Your task to perform on an android device: check google app version Image 0: 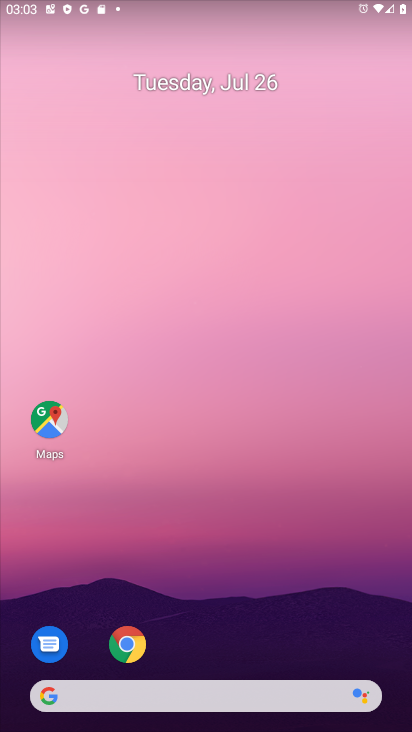
Step 0: drag from (185, 657) to (215, 365)
Your task to perform on an android device: check google app version Image 1: 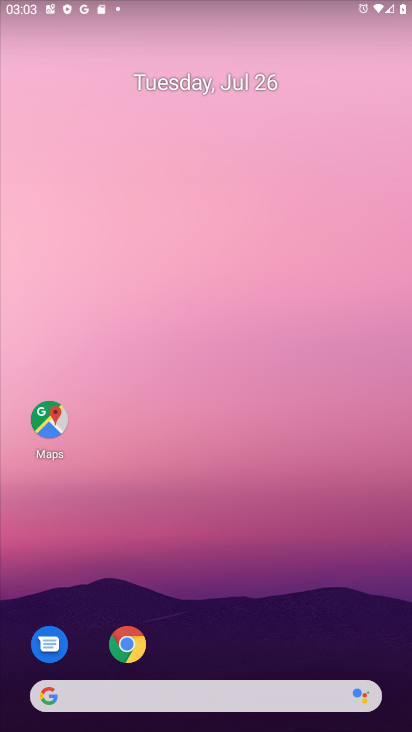
Step 1: drag from (213, 648) to (131, 9)
Your task to perform on an android device: check google app version Image 2: 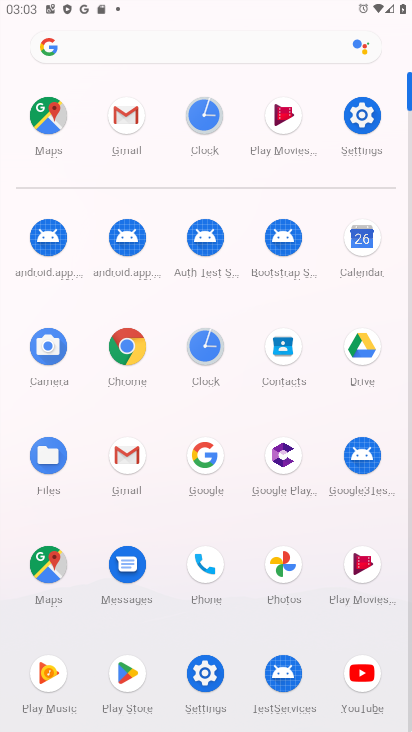
Step 2: click (210, 453)
Your task to perform on an android device: check google app version Image 3: 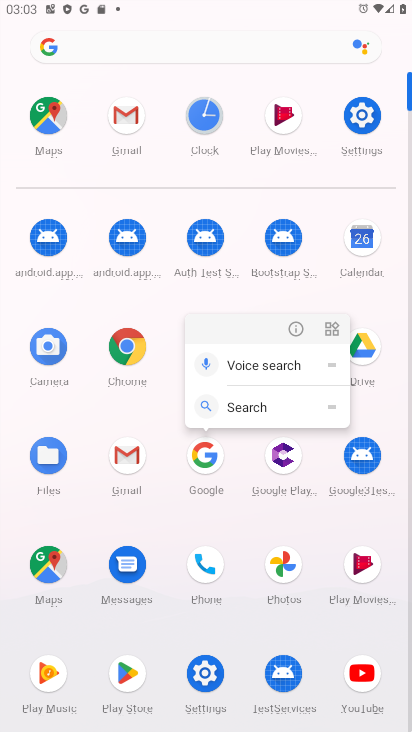
Step 3: click (291, 327)
Your task to perform on an android device: check google app version Image 4: 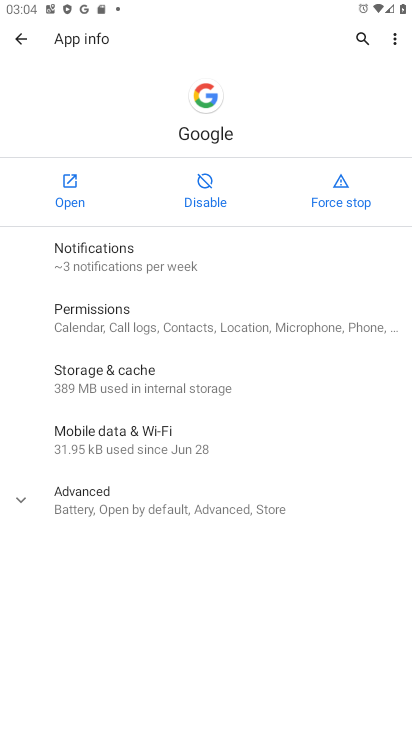
Step 4: click (110, 521)
Your task to perform on an android device: check google app version Image 5: 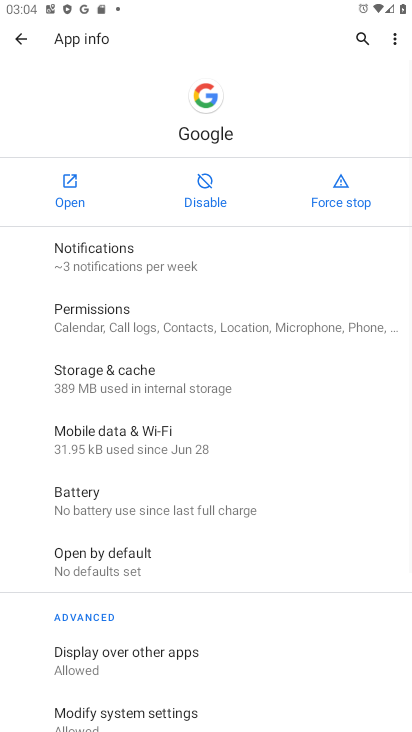
Step 5: task complete